Your task to perform on an android device: delete the emails in spam in the gmail app Image 0: 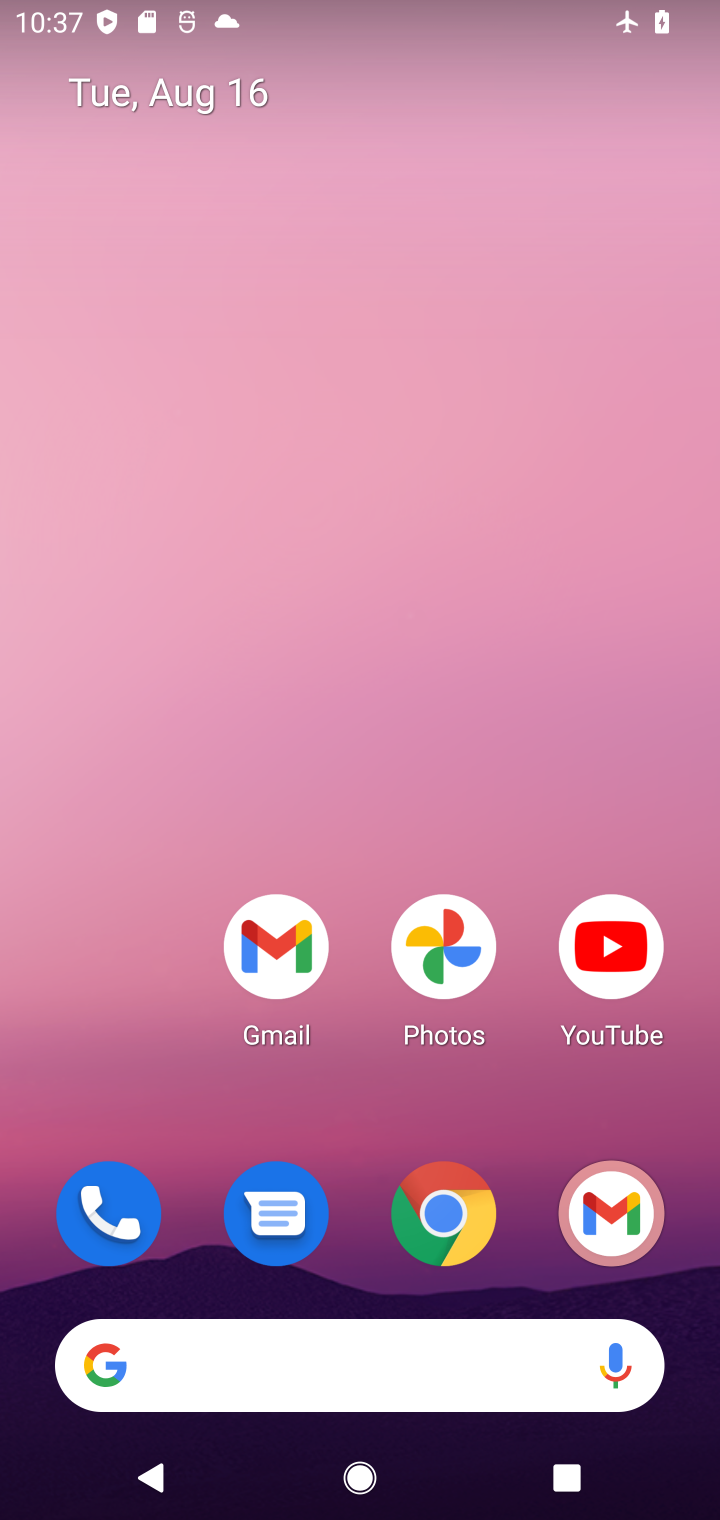
Step 0: drag from (276, 1209) to (192, 349)
Your task to perform on an android device: delete the emails in spam in the gmail app Image 1: 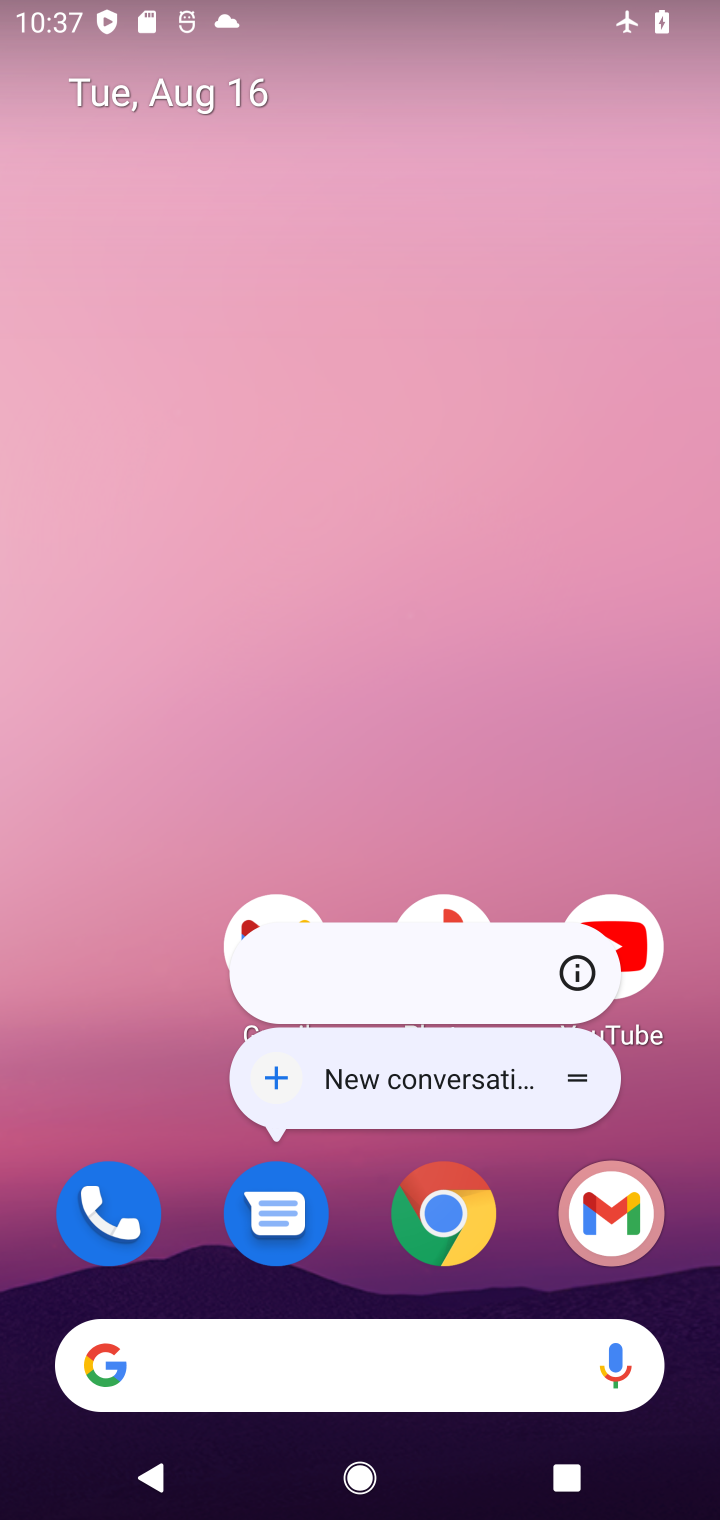
Step 1: click (419, 629)
Your task to perform on an android device: delete the emails in spam in the gmail app Image 2: 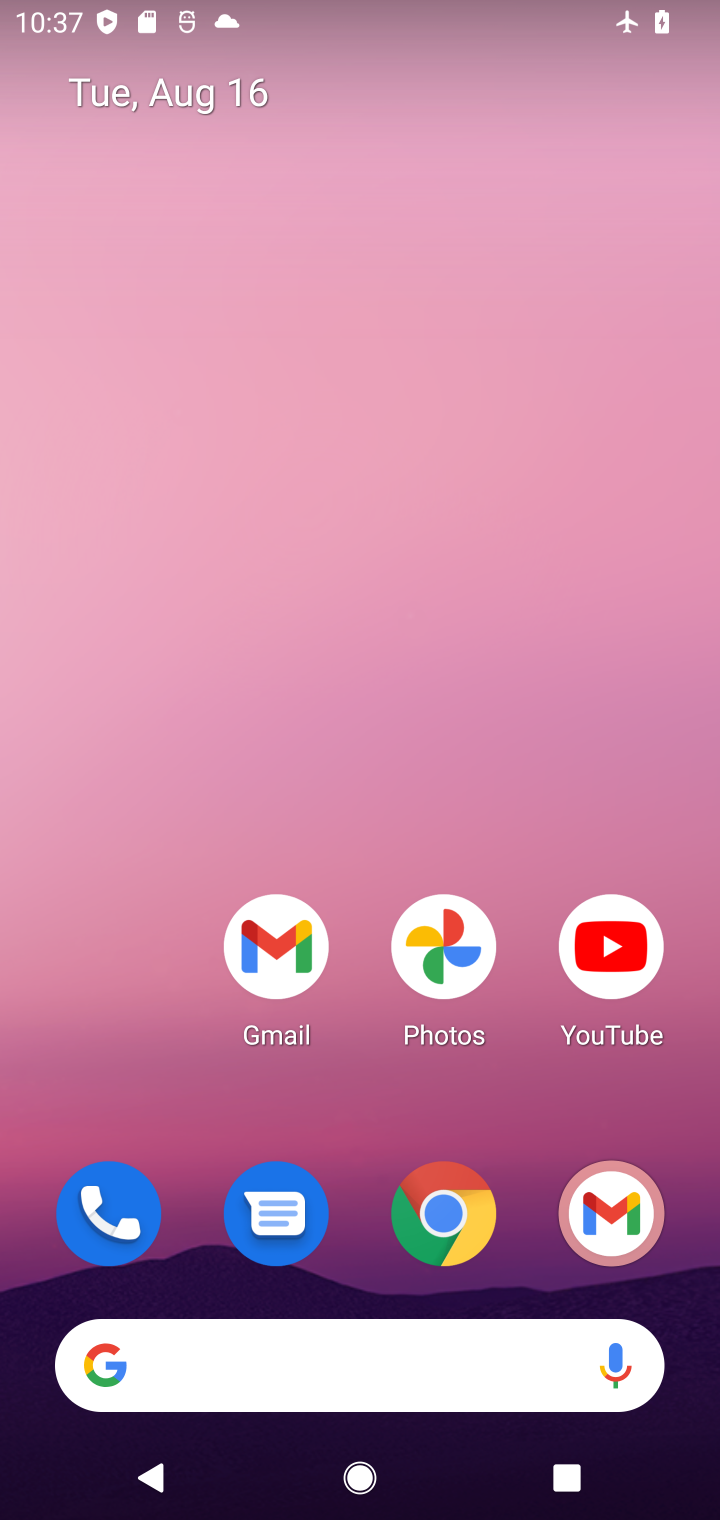
Step 2: drag from (342, 910) to (20, 0)
Your task to perform on an android device: delete the emails in spam in the gmail app Image 3: 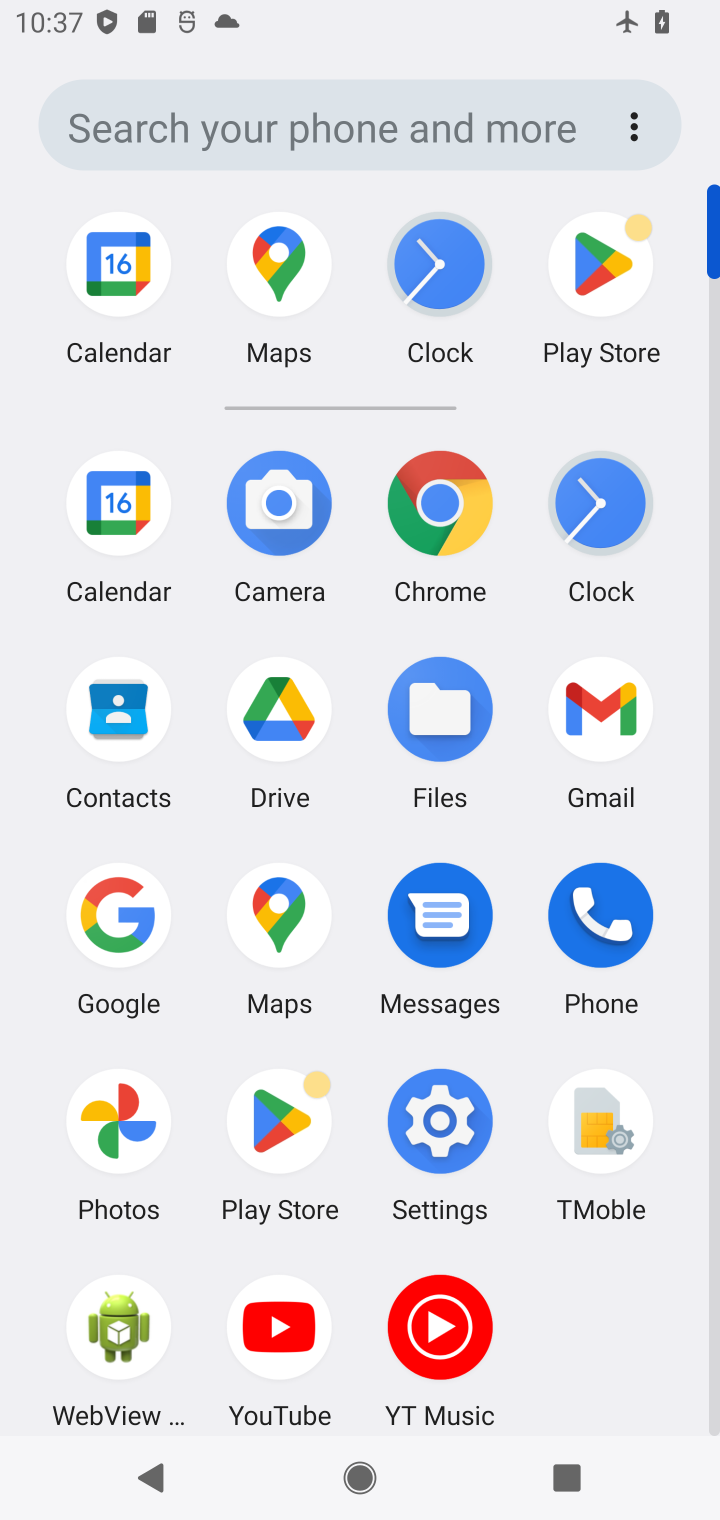
Step 3: click (600, 673)
Your task to perform on an android device: delete the emails in spam in the gmail app Image 4: 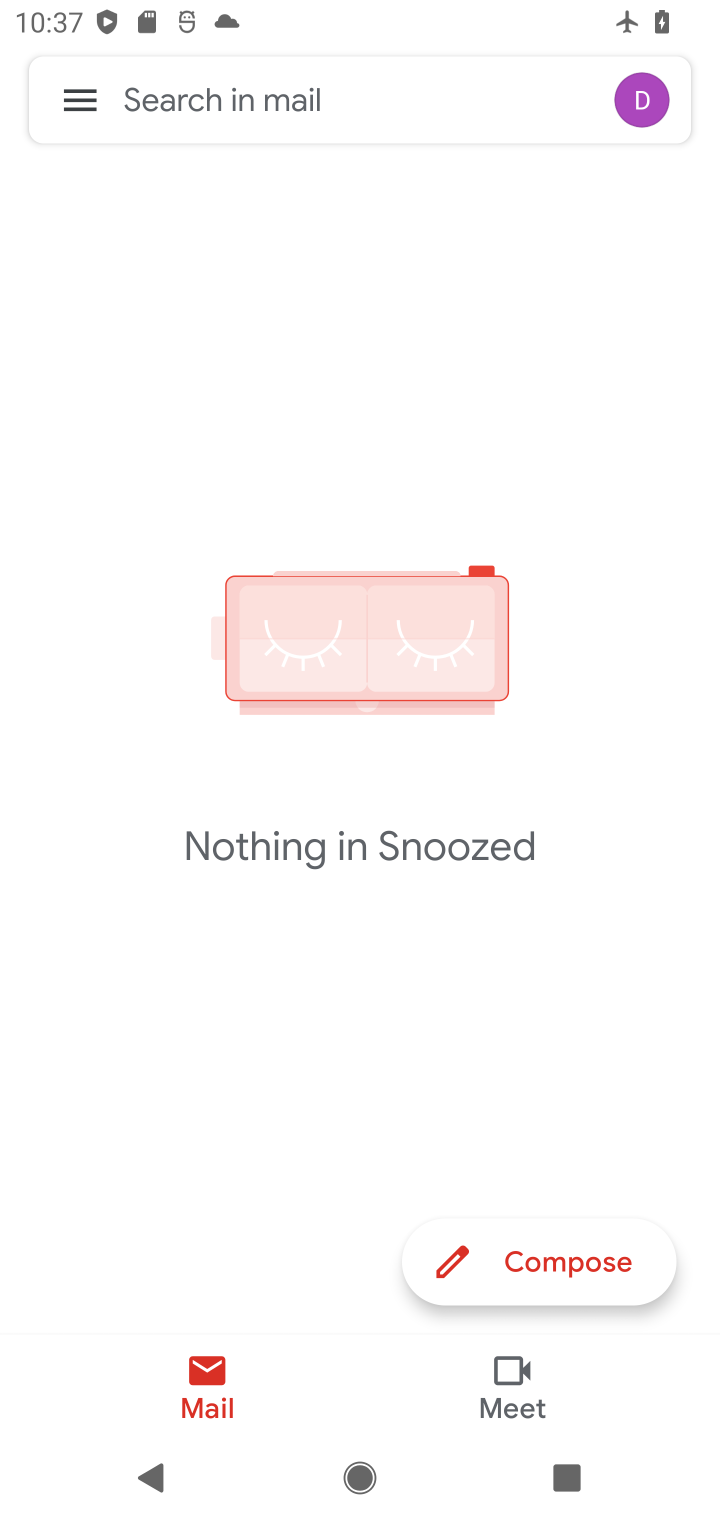
Step 4: click (84, 80)
Your task to perform on an android device: delete the emails in spam in the gmail app Image 5: 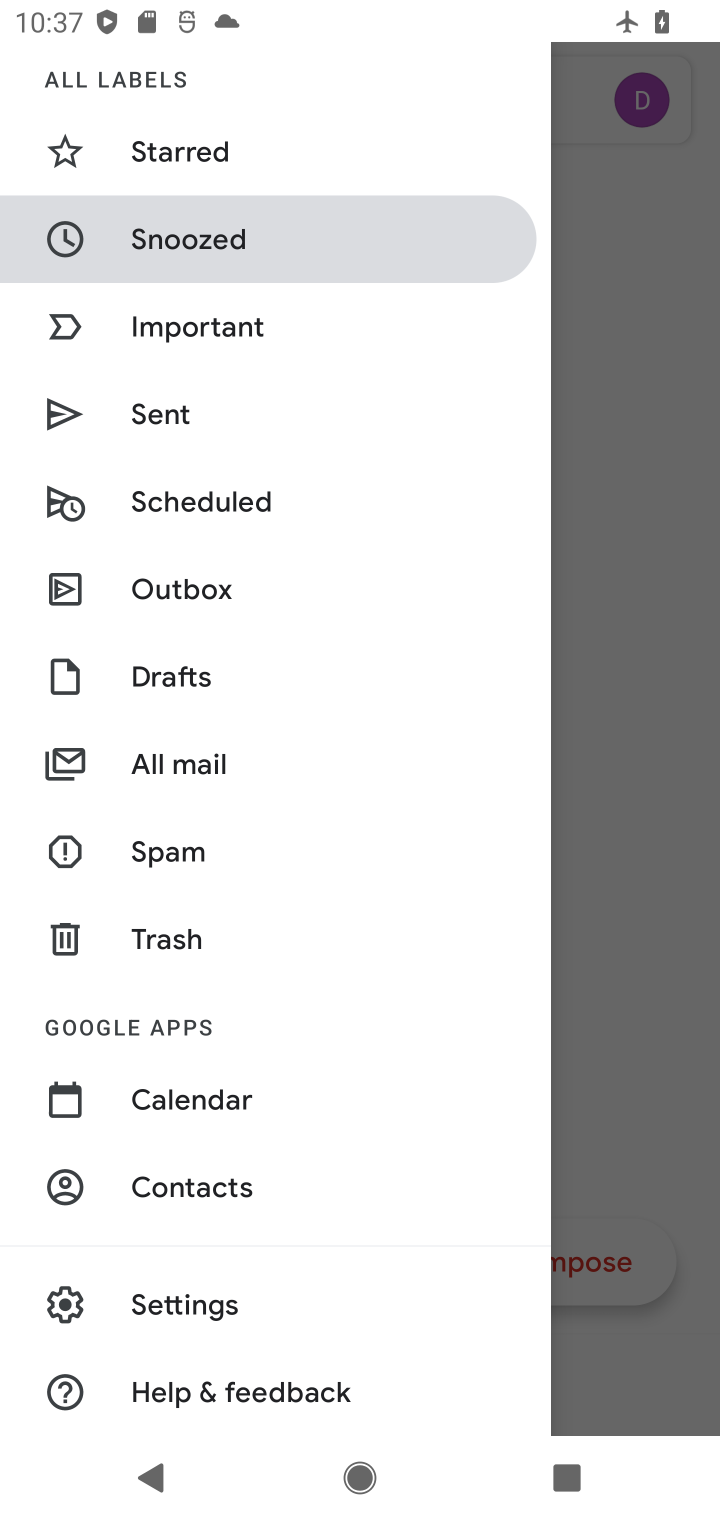
Step 5: click (217, 766)
Your task to perform on an android device: delete the emails in spam in the gmail app Image 6: 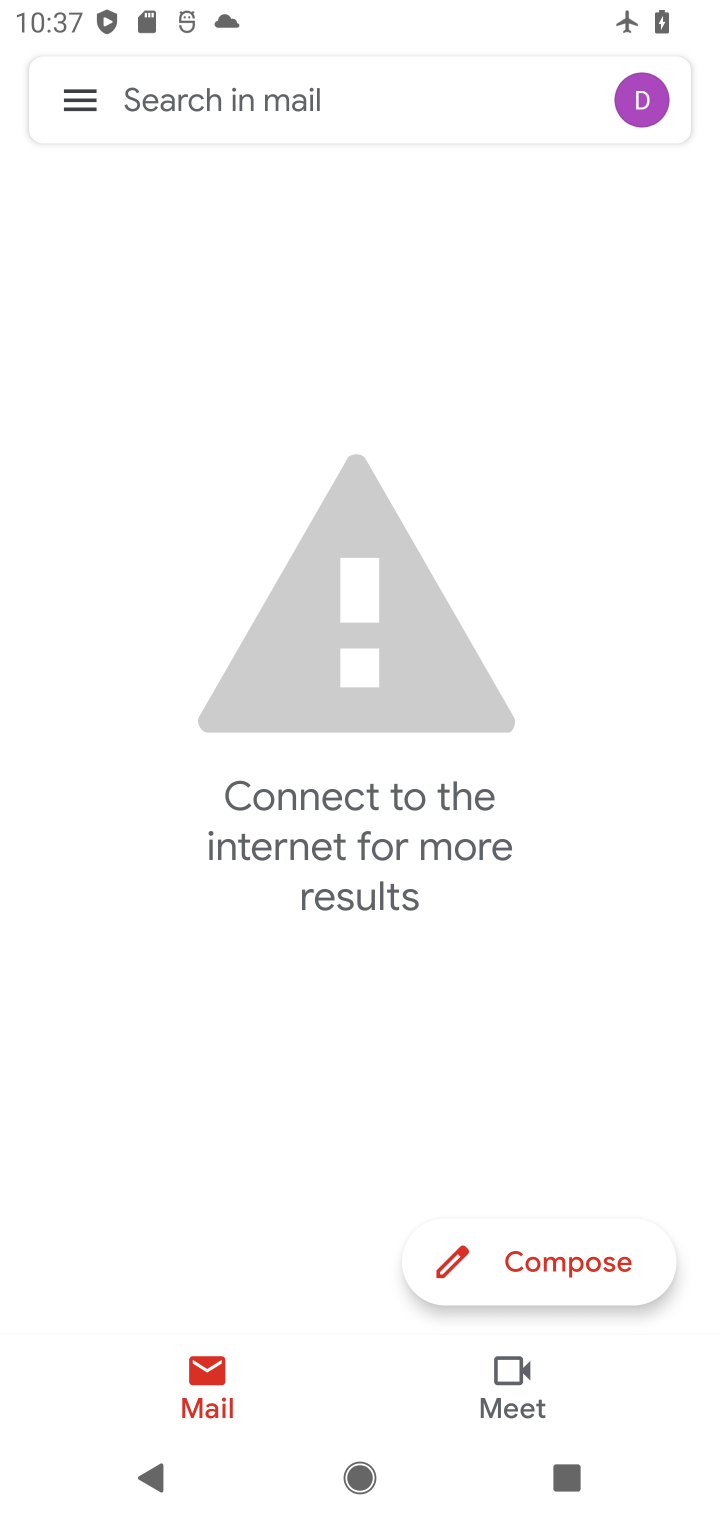
Step 6: task complete